Your task to perform on an android device: When is my next appointment? Image 0: 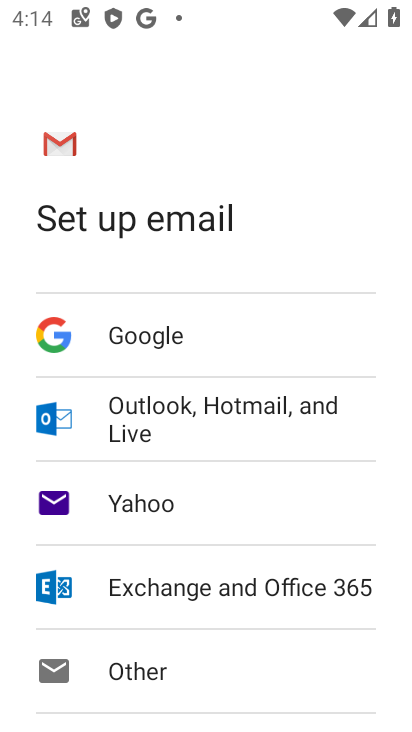
Step 0: press back button
Your task to perform on an android device: When is my next appointment? Image 1: 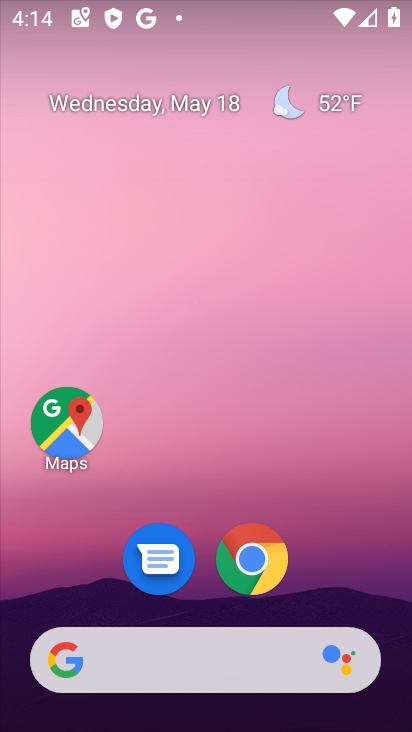
Step 1: drag from (212, 611) to (327, 100)
Your task to perform on an android device: When is my next appointment? Image 2: 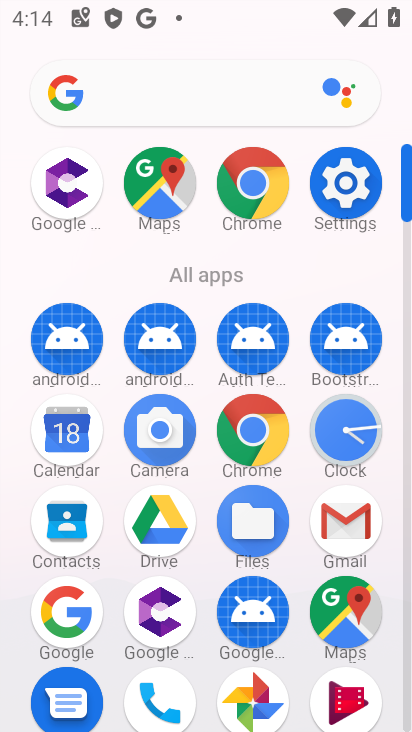
Step 2: click (69, 432)
Your task to perform on an android device: When is my next appointment? Image 3: 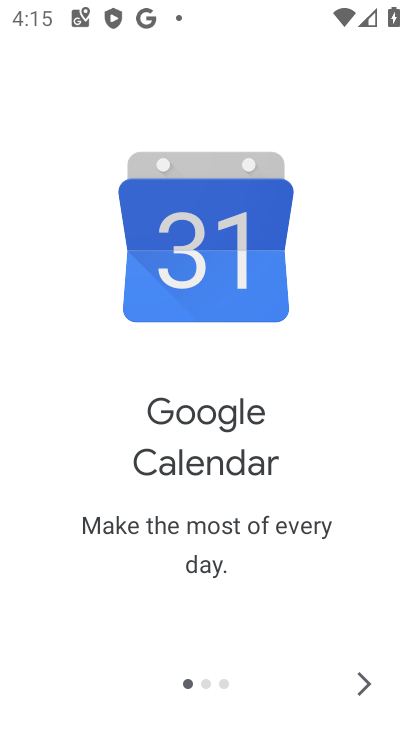
Step 3: click (357, 697)
Your task to perform on an android device: When is my next appointment? Image 4: 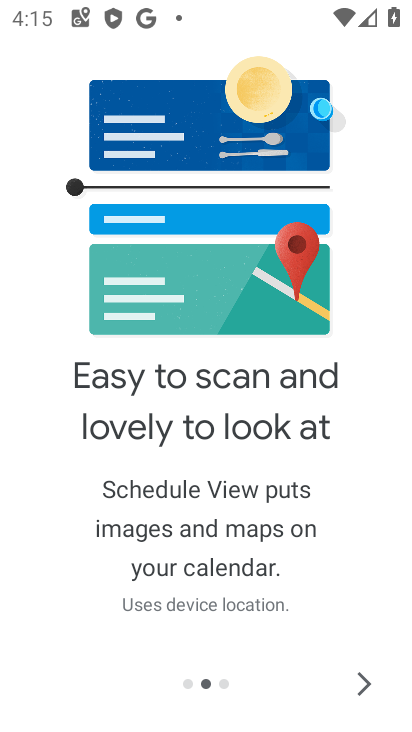
Step 4: click (357, 697)
Your task to perform on an android device: When is my next appointment? Image 5: 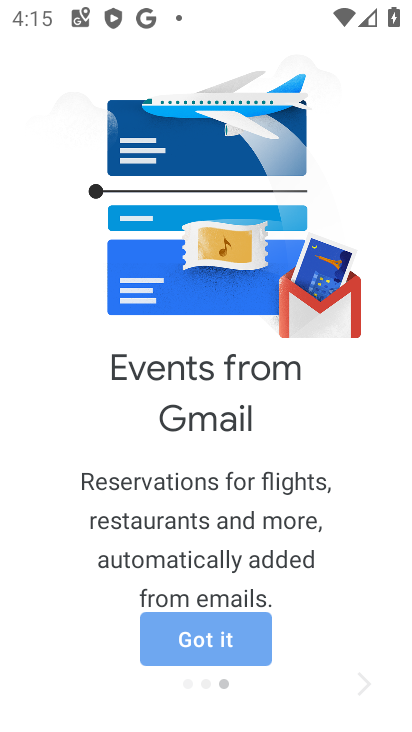
Step 5: click (357, 697)
Your task to perform on an android device: When is my next appointment? Image 6: 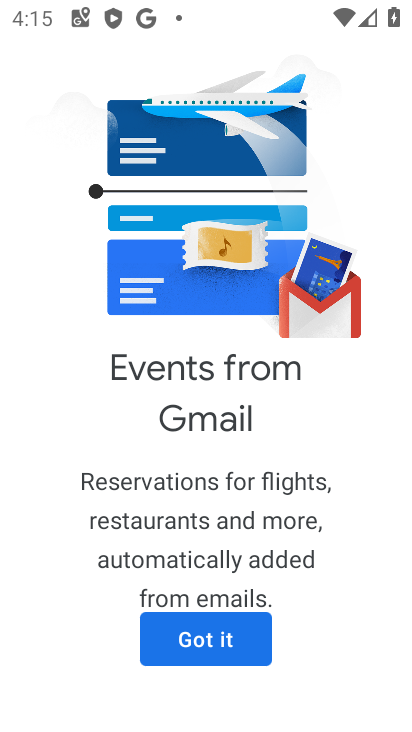
Step 6: click (251, 638)
Your task to perform on an android device: When is my next appointment? Image 7: 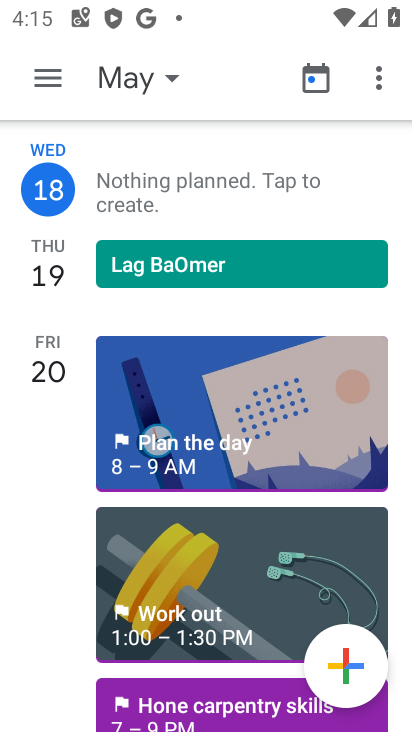
Step 7: task complete